Your task to perform on an android device: uninstall "Upside-Cash back on gas & food" Image 0: 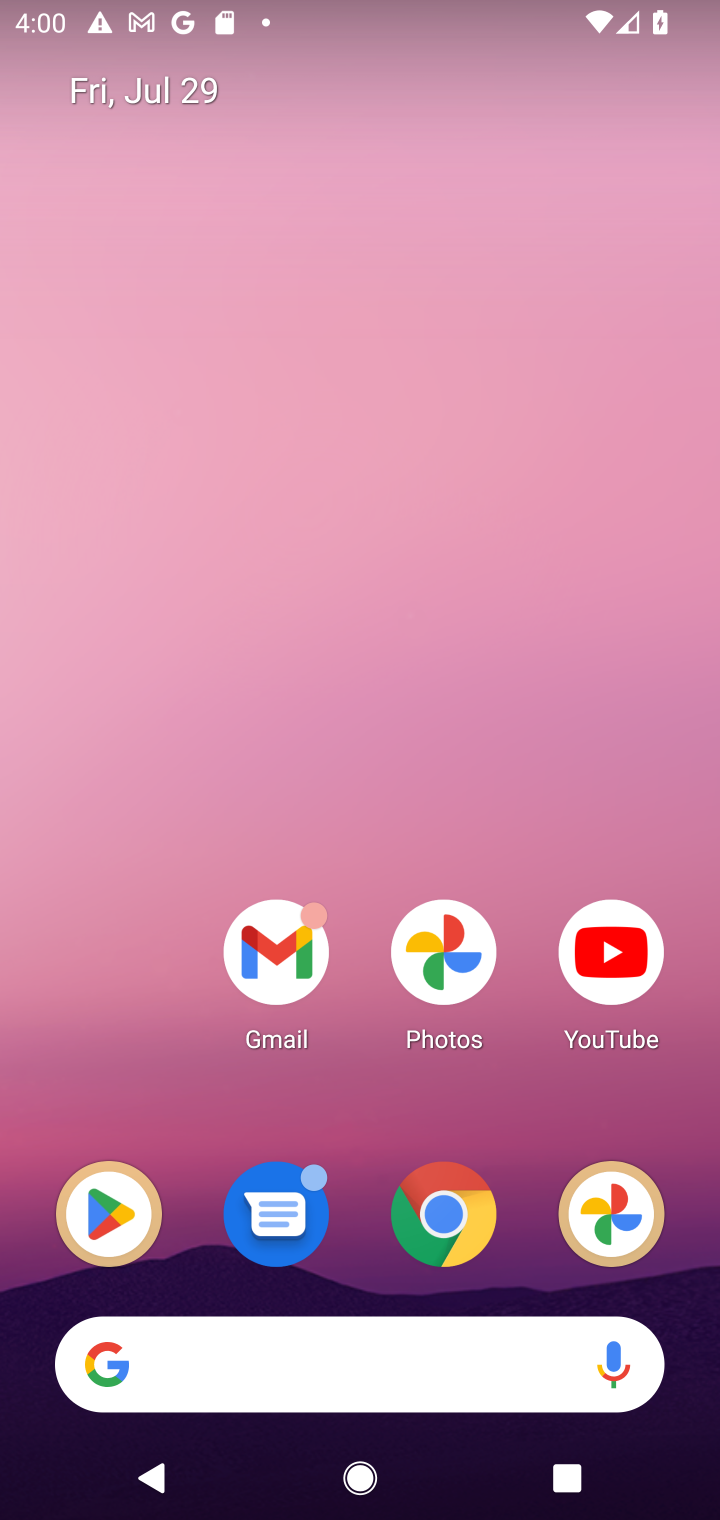
Step 0: click (80, 1203)
Your task to perform on an android device: uninstall "Upside-Cash back on gas & food" Image 1: 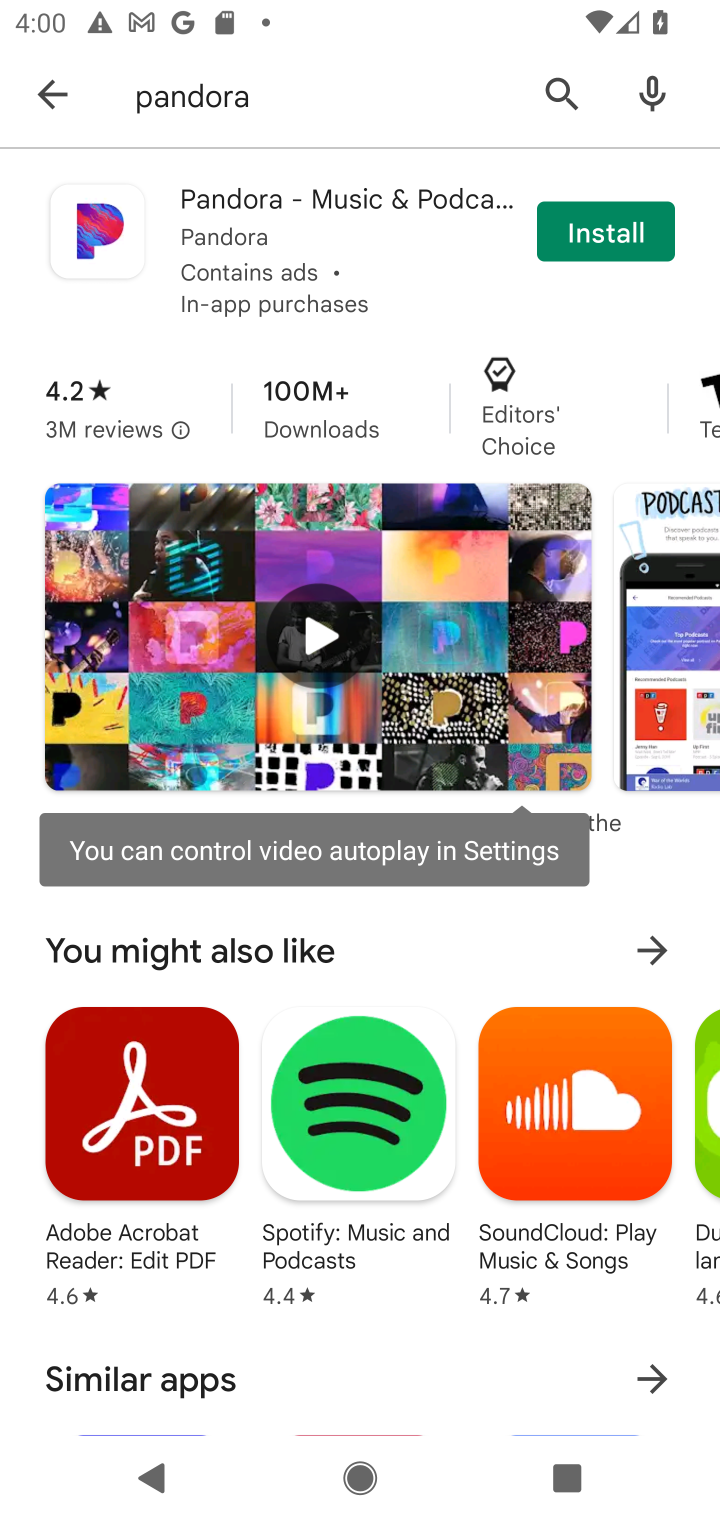
Step 1: click (328, 108)
Your task to perform on an android device: uninstall "Upside-Cash back on gas & food" Image 2: 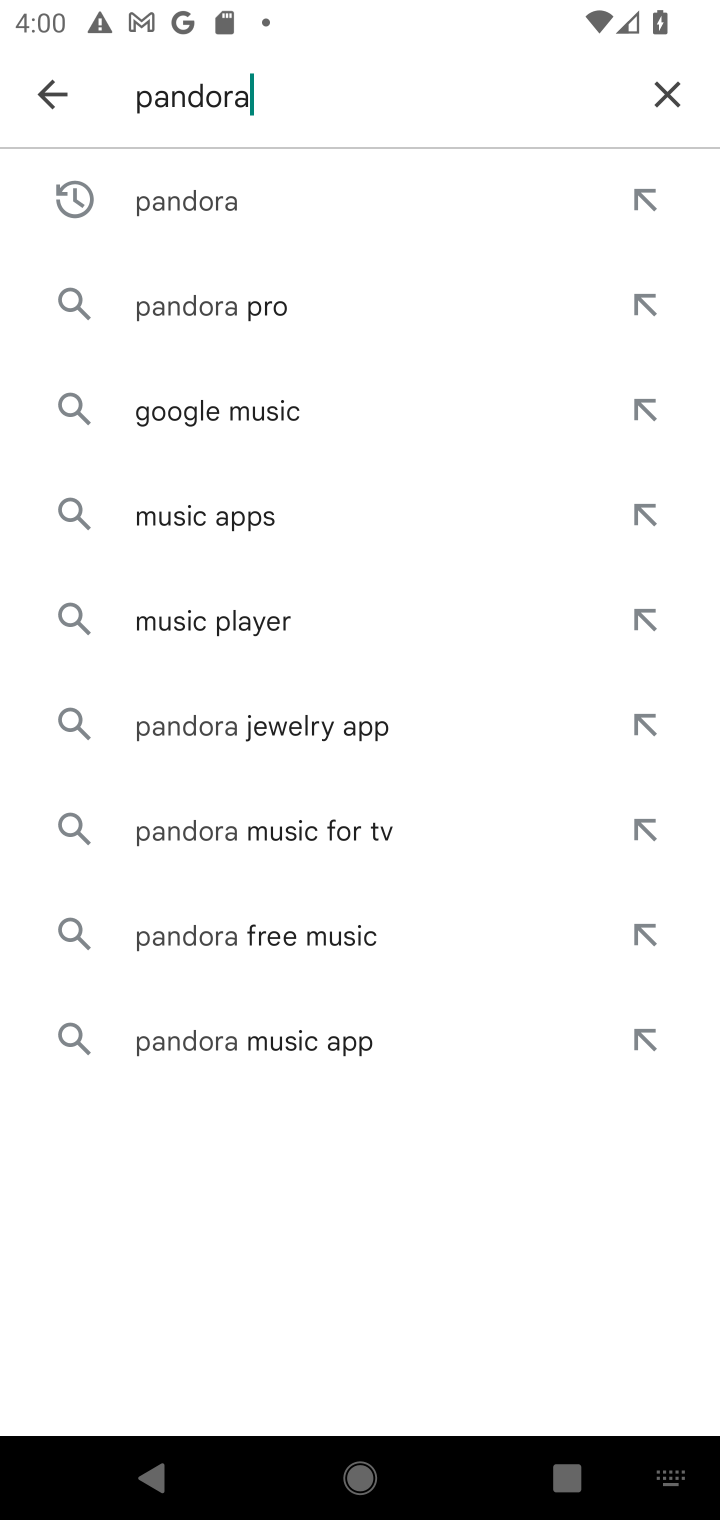
Step 2: click (662, 99)
Your task to perform on an android device: uninstall "Upside-Cash back on gas & food" Image 3: 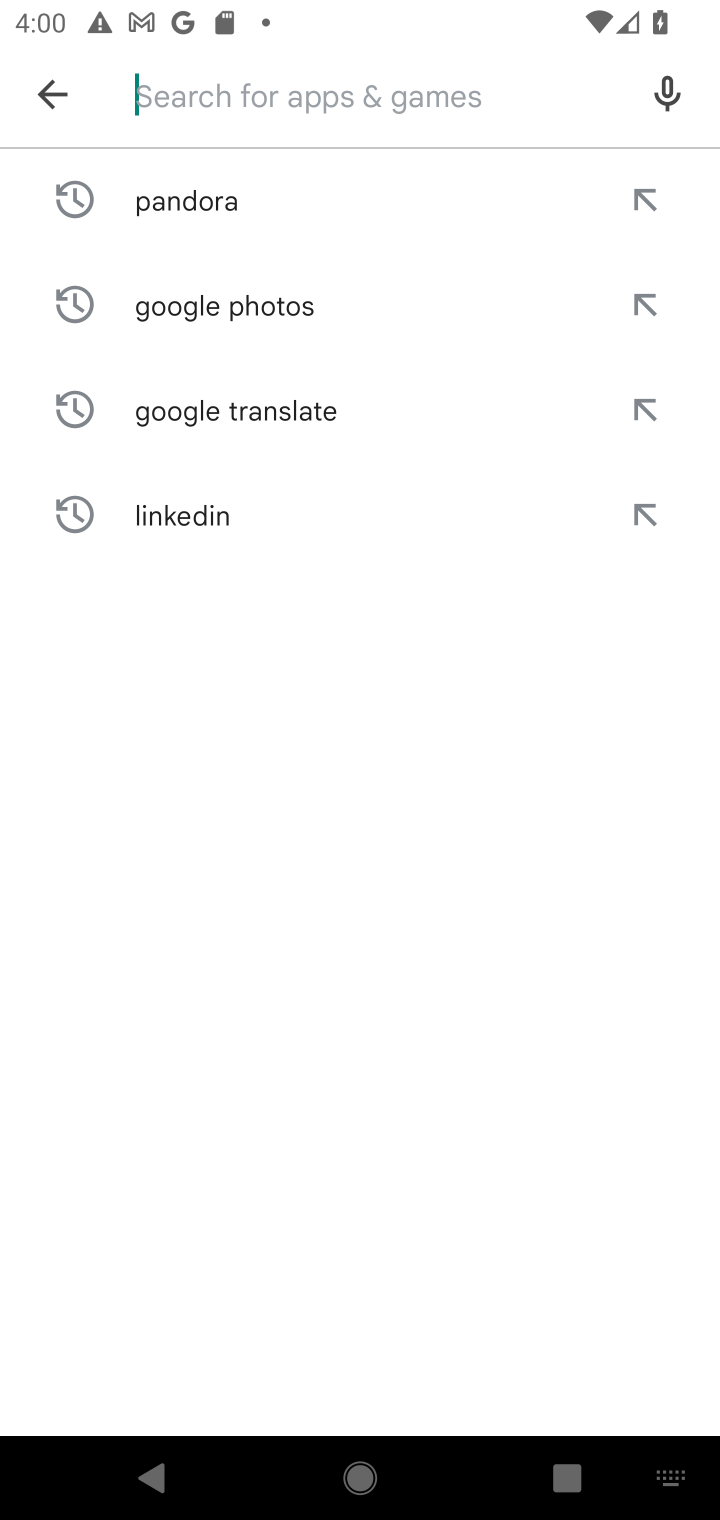
Step 3: type "upside "
Your task to perform on an android device: uninstall "Upside-Cash back on gas & food" Image 4: 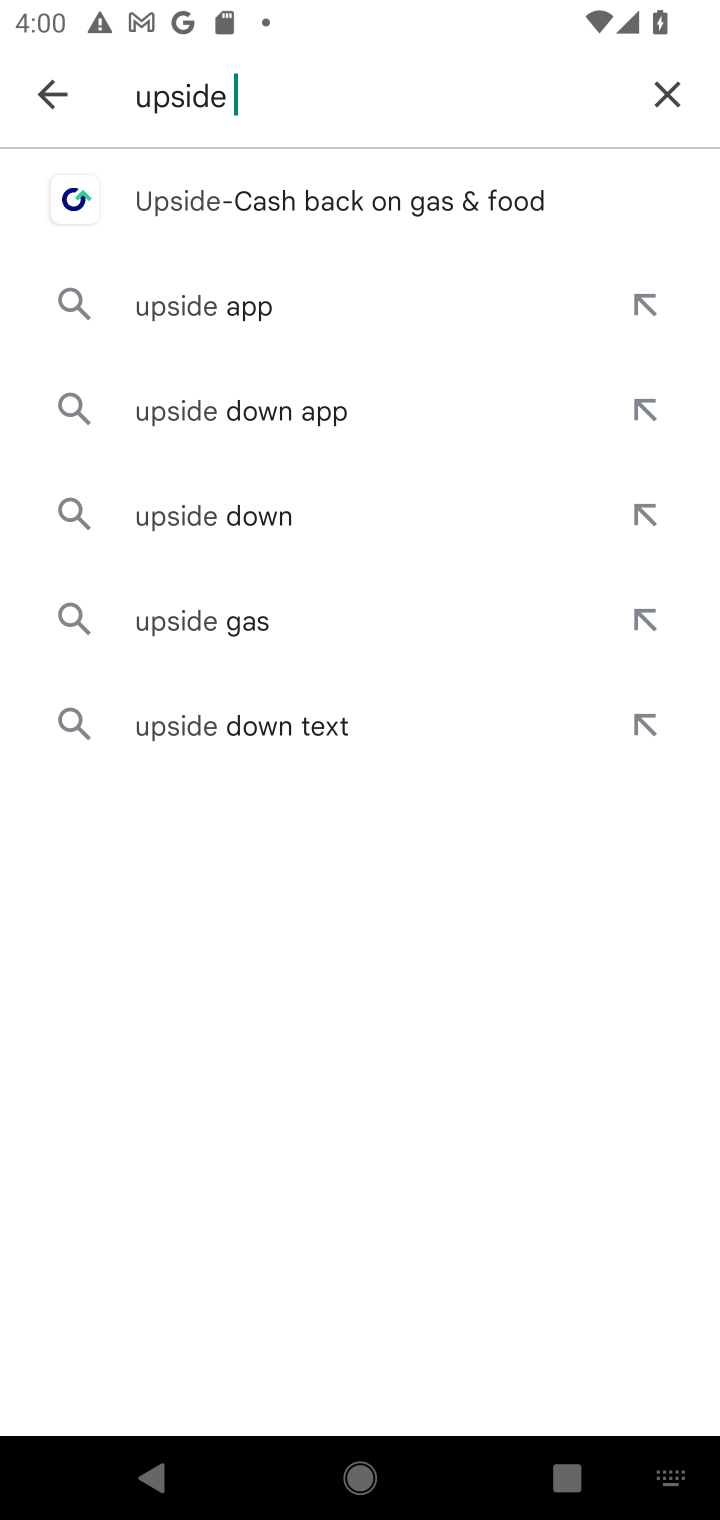
Step 4: click (261, 214)
Your task to perform on an android device: uninstall "Upside-Cash back on gas & food" Image 5: 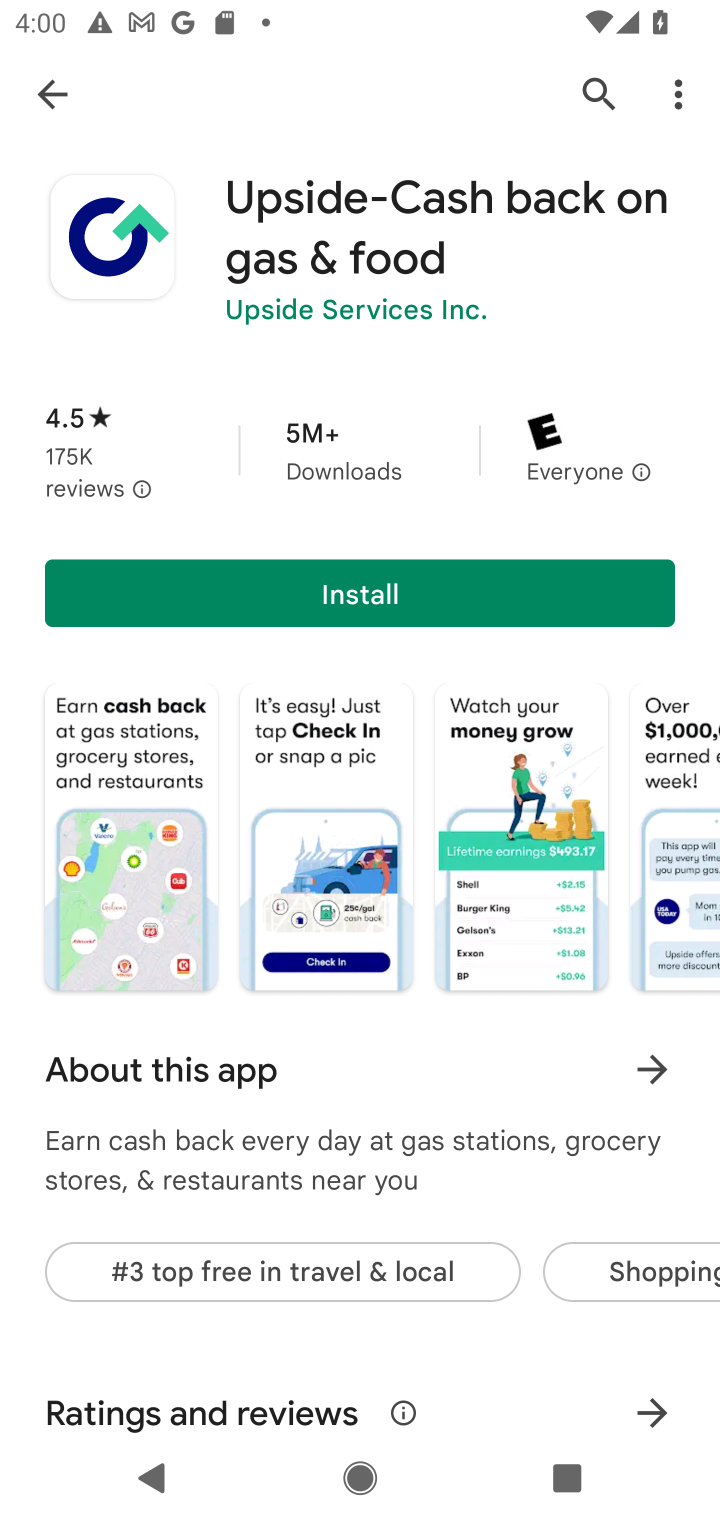
Step 5: task complete